Your task to perform on an android device: delete a single message in the gmail app Image 0: 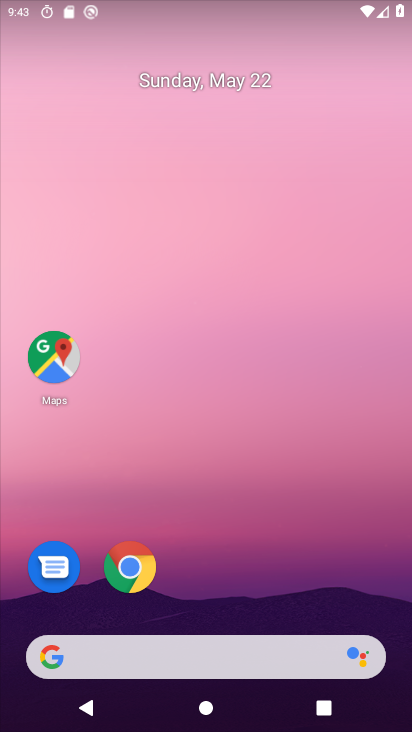
Step 0: press home button
Your task to perform on an android device: delete a single message in the gmail app Image 1: 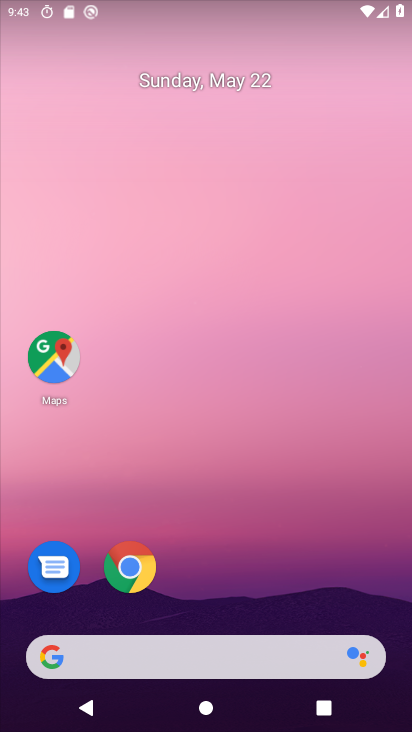
Step 1: drag from (224, 581) to (222, 133)
Your task to perform on an android device: delete a single message in the gmail app Image 2: 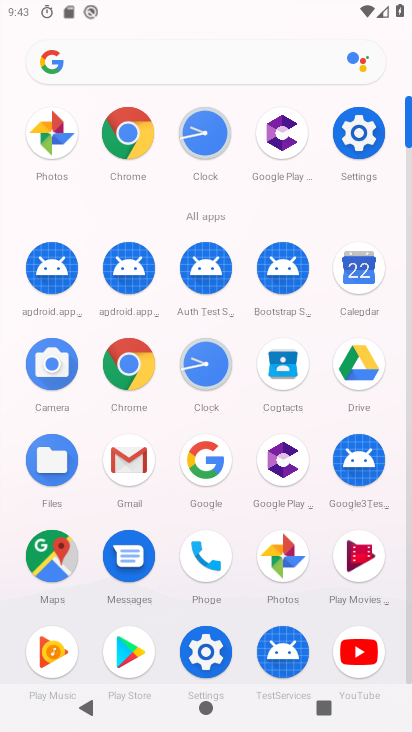
Step 2: click (131, 450)
Your task to perform on an android device: delete a single message in the gmail app Image 3: 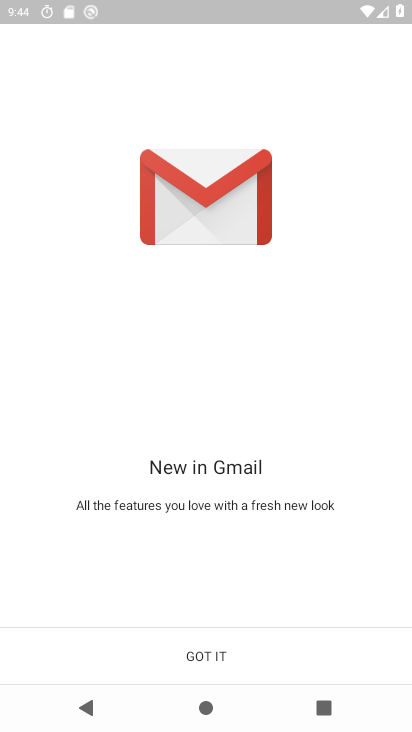
Step 3: click (207, 661)
Your task to perform on an android device: delete a single message in the gmail app Image 4: 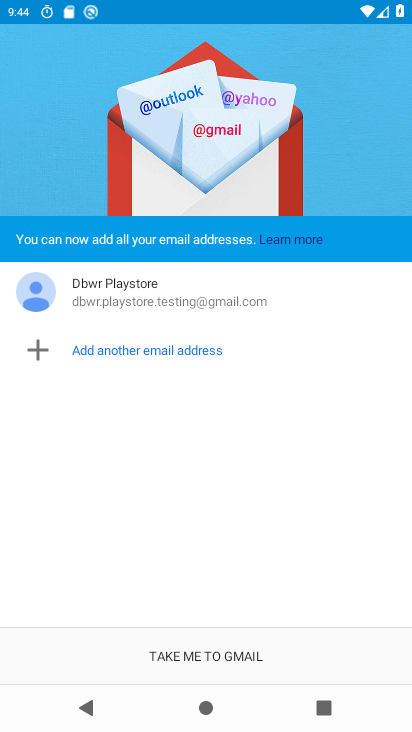
Step 4: click (209, 659)
Your task to perform on an android device: delete a single message in the gmail app Image 5: 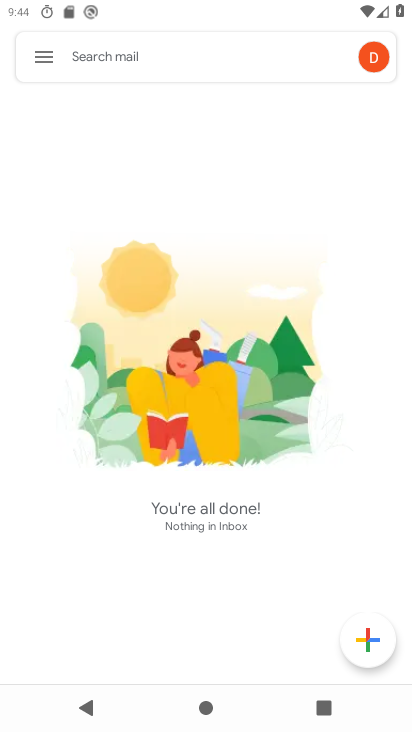
Step 5: click (42, 54)
Your task to perform on an android device: delete a single message in the gmail app Image 6: 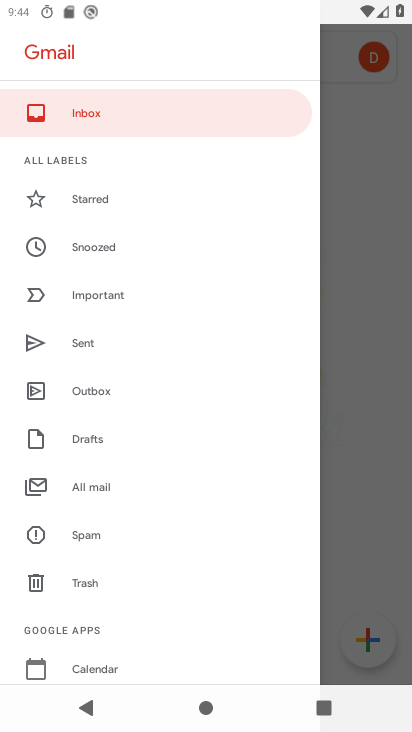
Step 6: drag from (127, 650) to (121, 425)
Your task to perform on an android device: delete a single message in the gmail app Image 7: 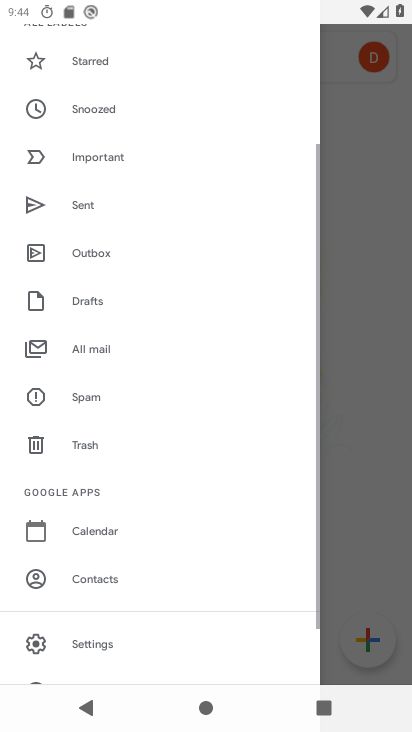
Step 7: click (121, 354)
Your task to perform on an android device: delete a single message in the gmail app Image 8: 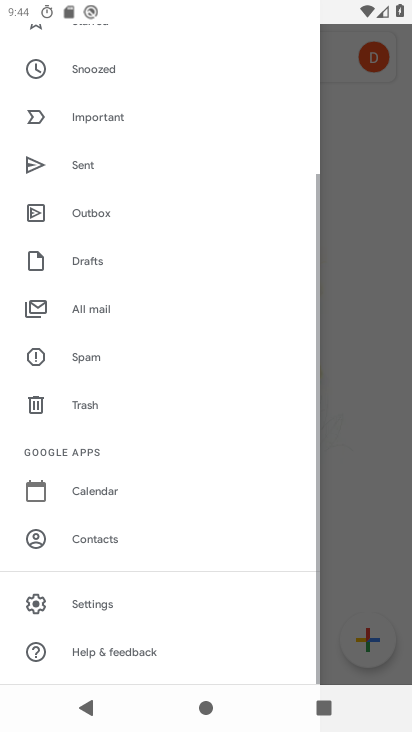
Step 8: click (123, 271)
Your task to perform on an android device: delete a single message in the gmail app Image 9: 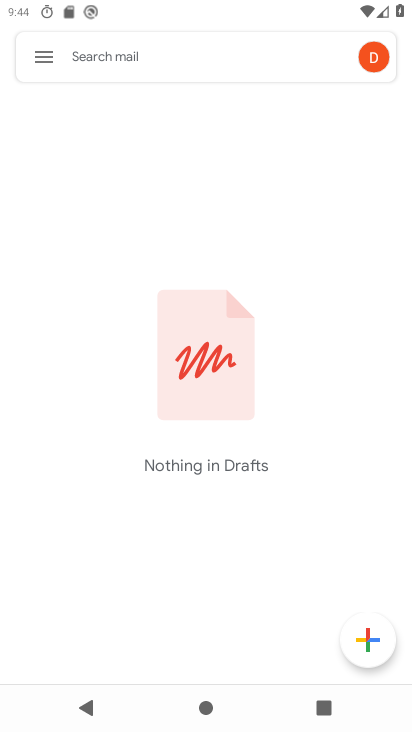
Step 9: click (45, 53)
Your task to perform on an android device: delete a single message in the gmail app Image 10: 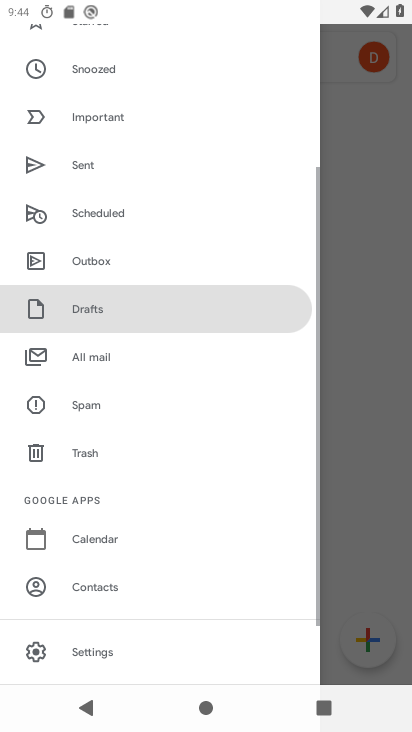
Step 10: click (101, 359)
Your task to perform on an android device: delete a single message in the gmail app Image 11: 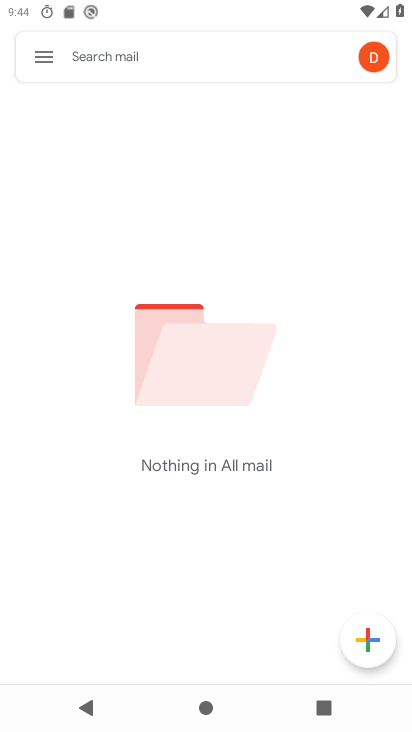
Step 11: task complete